Your task to perform on an android device: add a label to a message in the gmail app Image 0: 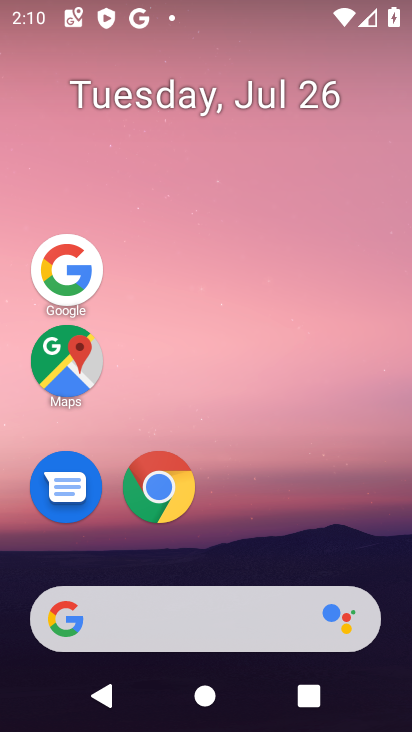
Step 0: drag from (224, 501) to (317, 199)
Your task to perform on an android device: add a label to a message in the gmail app Image 1: 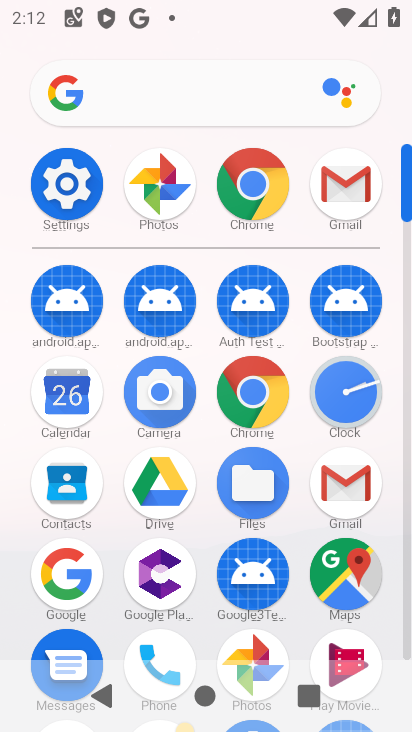
Step 1: click (351, 484)
Your task to perform on an android device: add a label to a message in the gmail app Image 2: 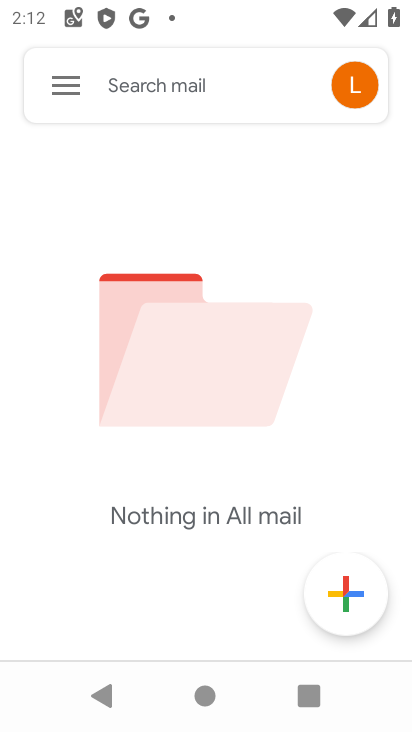
Step 2: task complete